Your task to perform on an android device: turn on javascript in the chrome app Image 0: 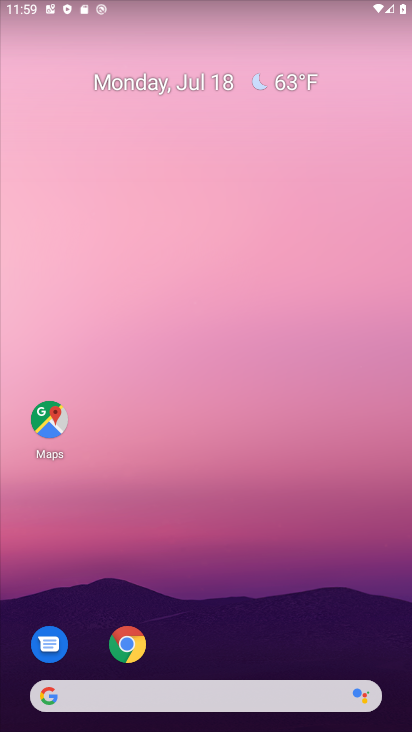
Step 0: drag from (212, 723) to (225, 377)
Your task to perform on an android device: turn on javascript in the chrome app Image 1: 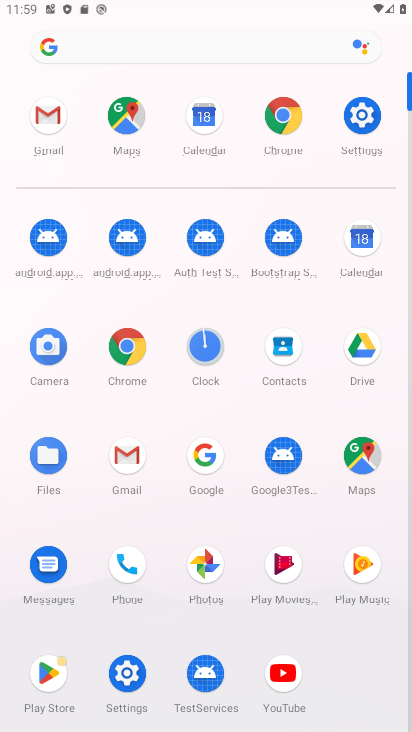
Step 1: click (129, 350)
Your task to perform on an android device: turn on javascript in the chrome app Image 2: 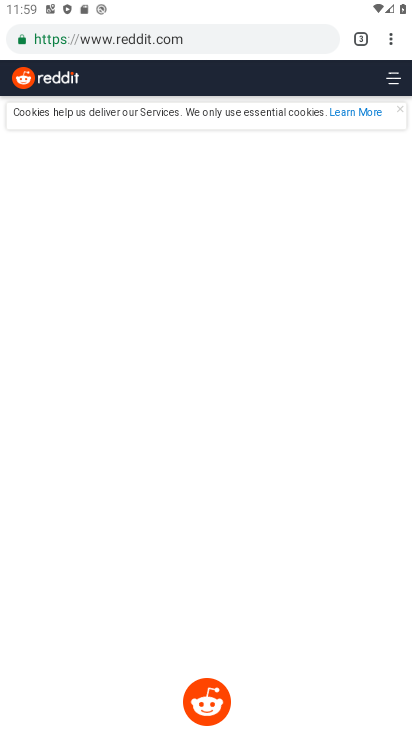
Step 2: click (390, 40)
Your task to perform on an android device: turn on javascript in the chrome app Image 3: 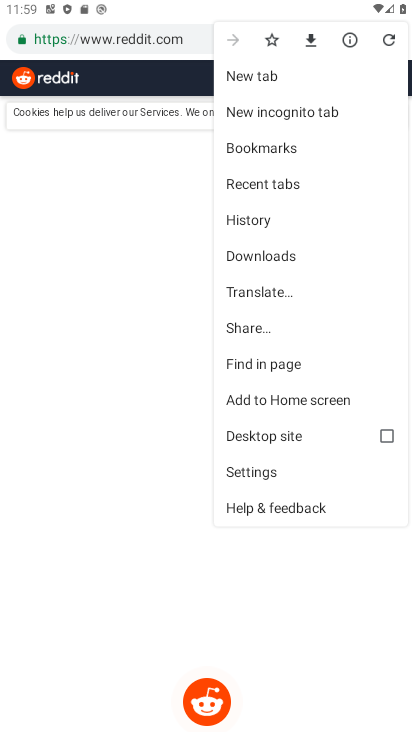
Step 3: click (248, 472)
Your task to perform on an android device: turn on javascript in the chrome app Image 4: 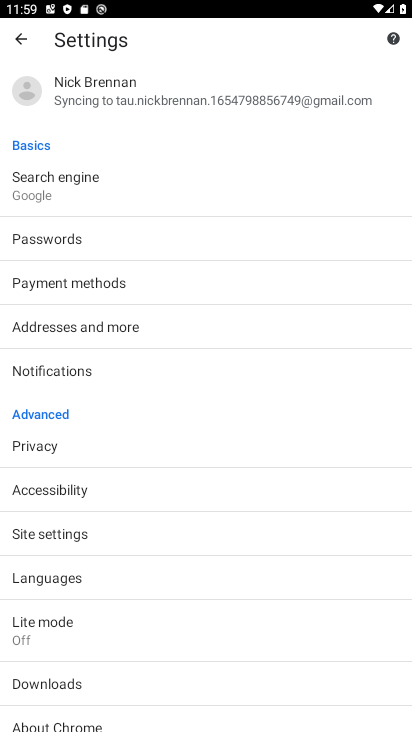
Step 4: click (42, 533)
Your task to perform on an android device: turn on javascript in the chrome app Image 5: 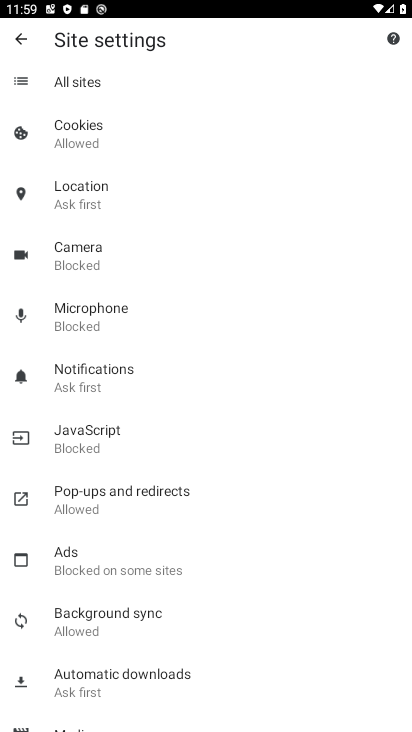
Step 5: click (79, 436)
Your task to perform on an android device: turn on javascript in the chrome app Image 6: 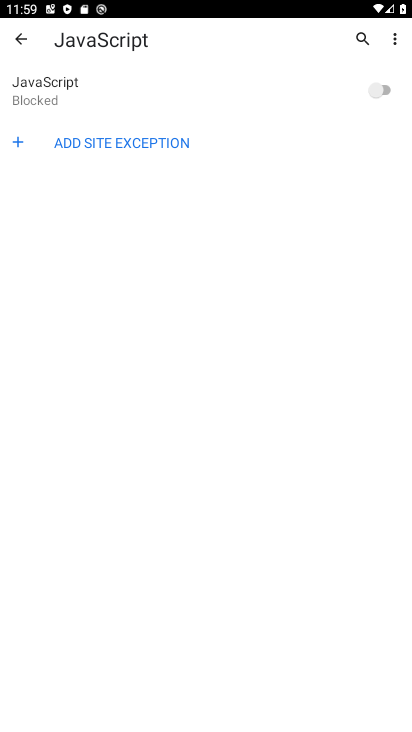
Step 6: click (385, 88)
Your task to perform on an android device: turn on javascript in the chrome app Image 7: 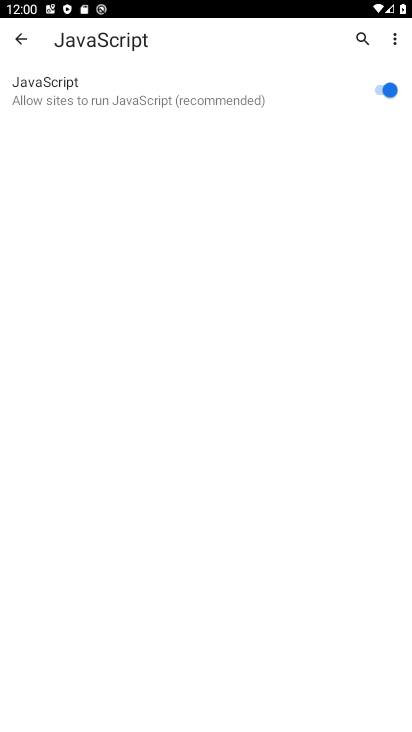
Step 7: task complete